Your task to perform on an android device: Open network settings Image 0: 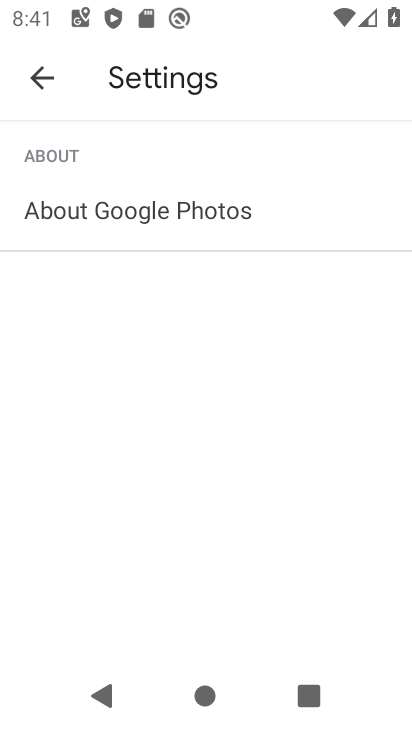
Step 0: press home button
Your task to perform on an android device: Open network settings Image 1: 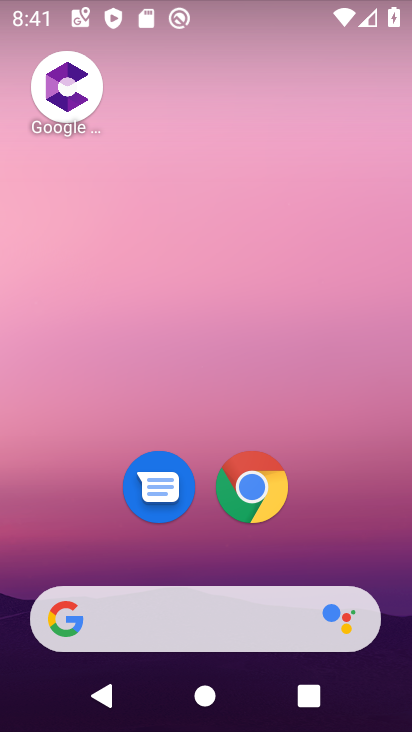
Step 1: drag from (361, 549) to (343, 122)
Your task to perform on an android device: Open network settings Image 2: 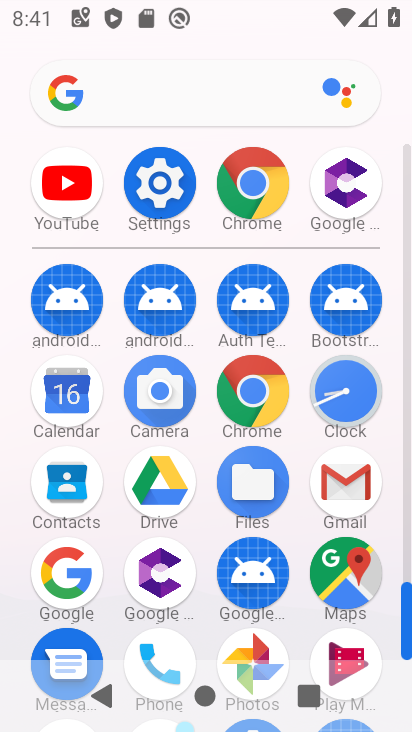
Step 2: click (174, 199)
Your task to perform on an android device: Open network settings Image 3: 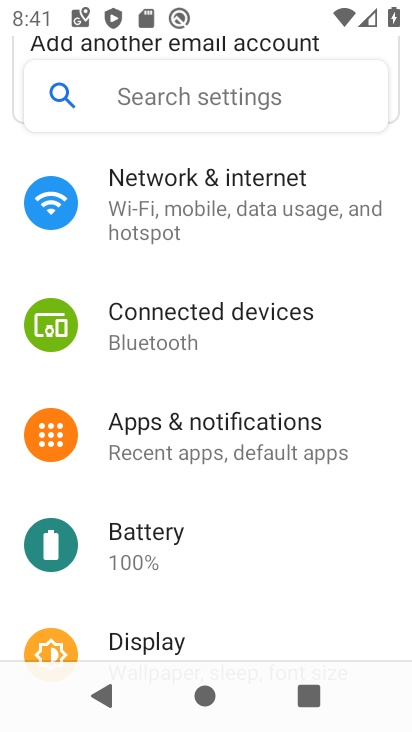
Step 3: drag from (366, 313) to (363, 540)
Your task to perform on an android device: Open network settings Image 4: 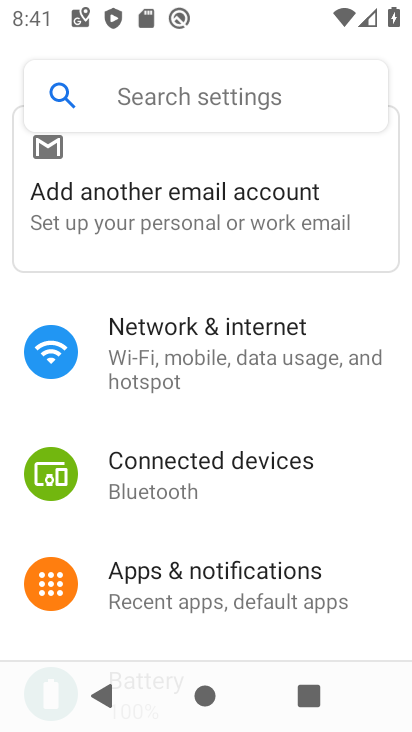
Step 4: drag from (355, 390) to (362, 541)
Your task to perform on an android device: Open network settings Image 5: 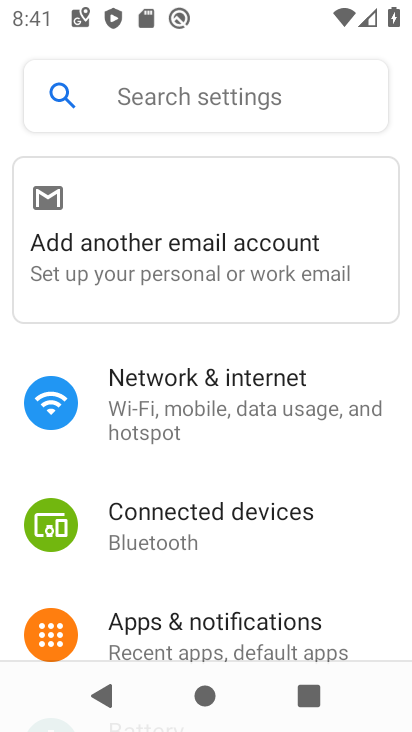
Step 5: drag from (373, 640) to (357, 465)
Your task to perform on an android device: Open network settings Image 6: 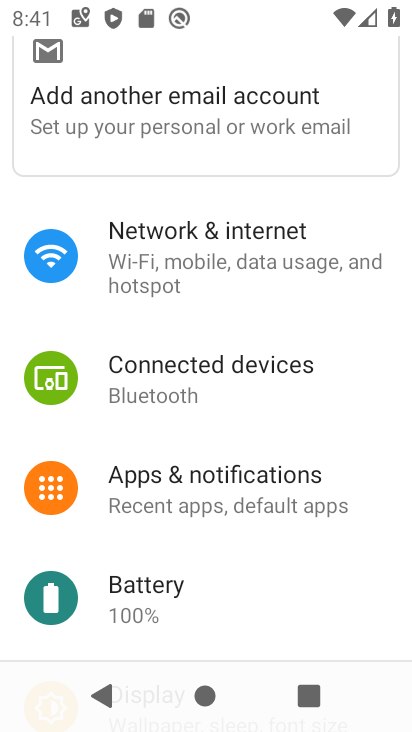
Step 6: drag from (366, 633) to (351, 446)
Your task to perform on an android device: Open network settings Image 7: 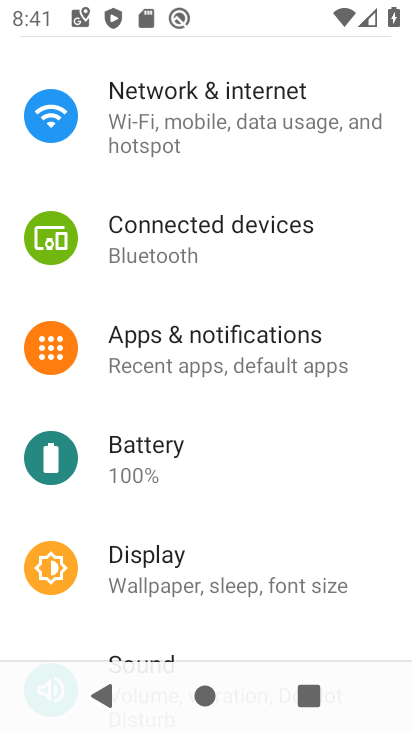
Step 7: drag from (329, 631) to (349, 464)
Your task to perform on an android device: Open network settings Image 8: 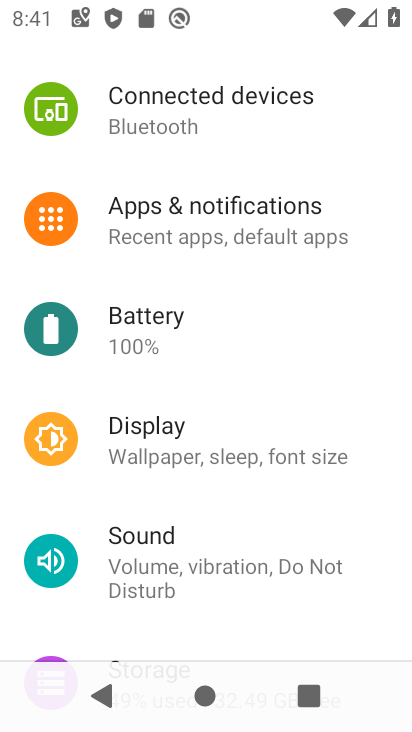
Step 8: drag from (363, 613) to (363, 498)
Your task to perform on an android device: Open network settings Image 9: 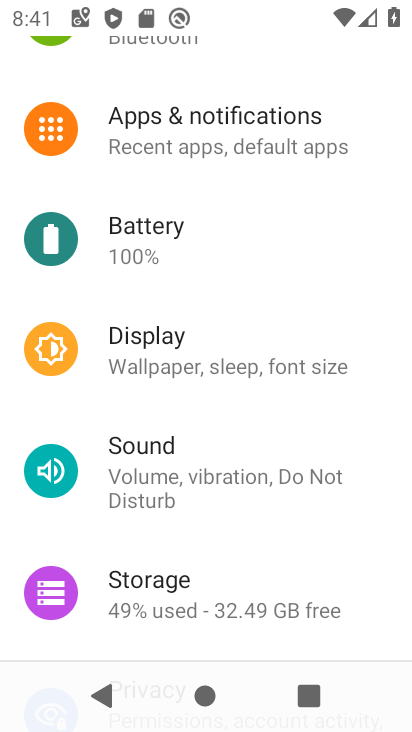
Step 9: drag from (323, 562) to (319, 403)
Your task to perform on an android device: Open network settings Image 10: 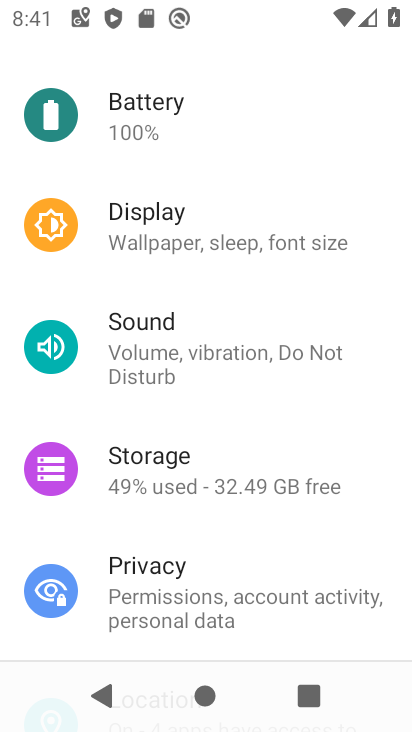
Step 10: drag from (310, 563) to (327, 377)
Your task to perform on an android device: Open network settings Image 11: 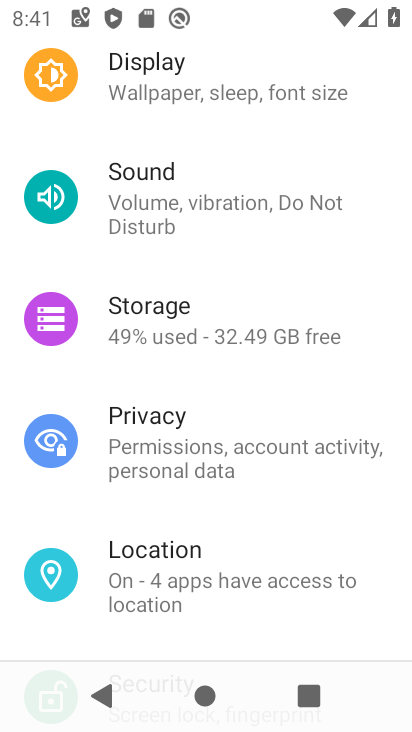
Step 11: drag from (309, 527) to (319, 364)
Your task to perform on an android device: Open network settings Image 12: 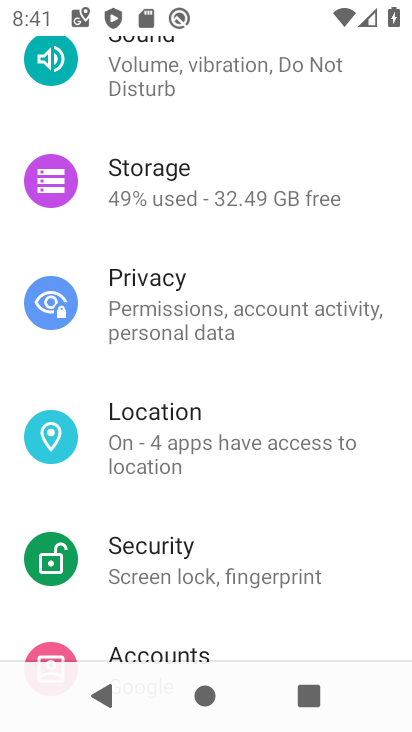
Step 12: drag from (326, 605) to (339, 359)
Your task to perform on an android device: Open network settings Image 13: 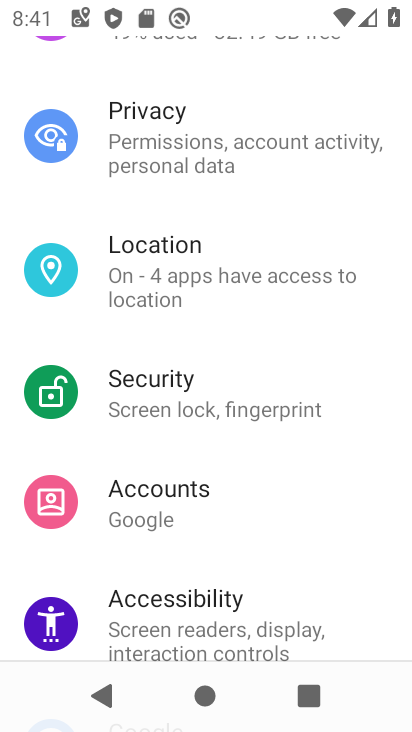
Step 13: drag from (310, 540) to (316, 393)
Your task to perform on an android device: Open network settings Image 14: 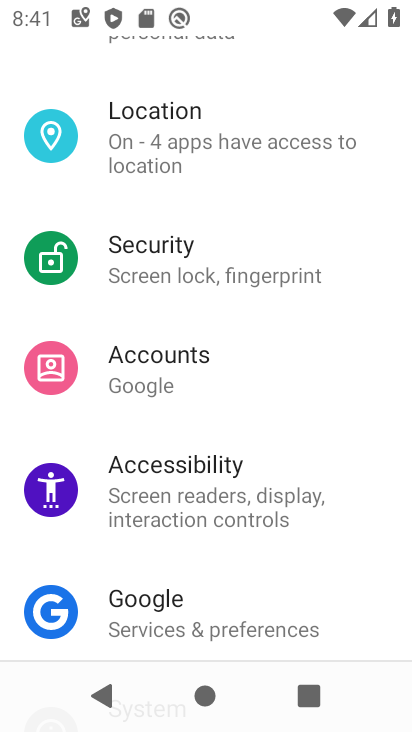
Step 14: drag from (314, 563) to (303, 371)
Your task to perform on an android device: Open network settings Image 15: 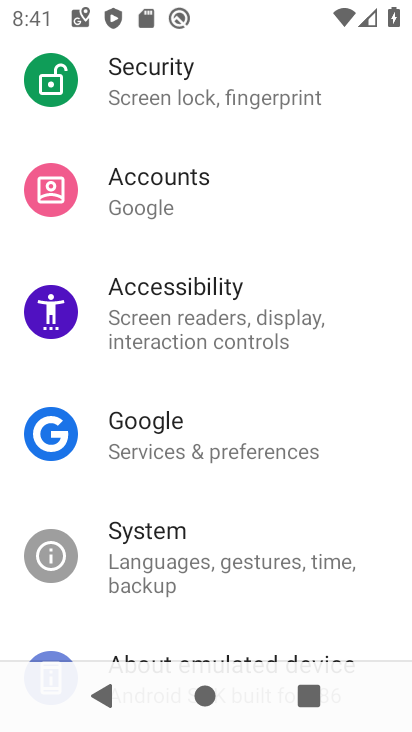
Step 15: drag from (295, 591) to (321, 406)
Your task to perform on an android device: Open network settings Image 16: 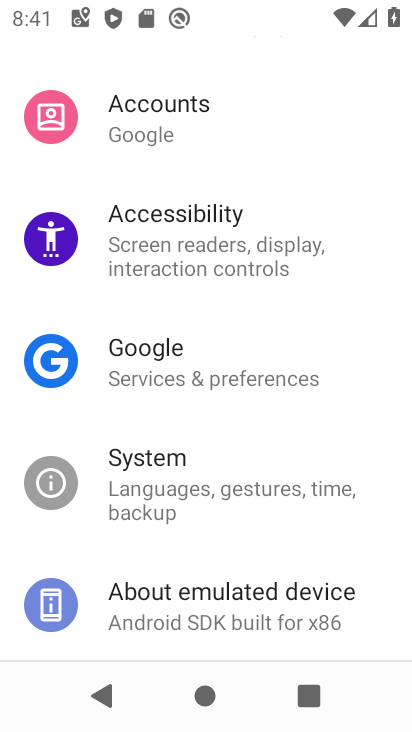
Step 16: drag from (346, 291) to (338, 458)
Your task to perform on an android device: Open network settings Image 17: 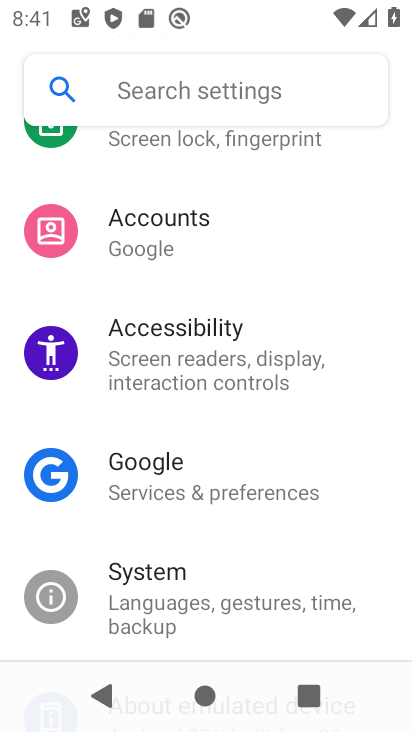
Step 17: drag from (346, 258) to (337, 436)
Your task to perform on an android device: Open network settings Image 18: 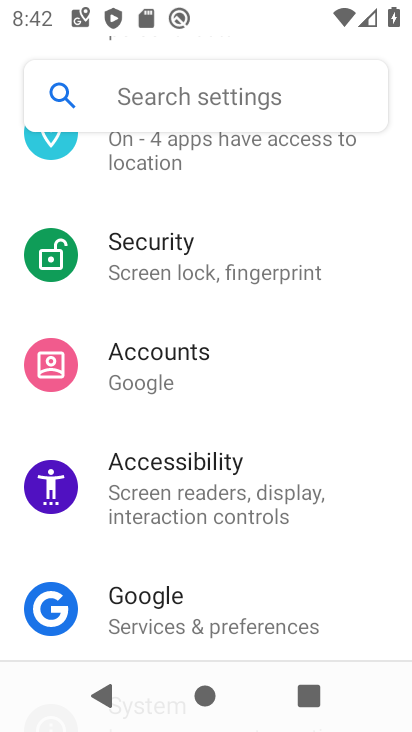
Step 18: drag from (354, 227) to (342, 432)
Your task to perform on an android device: Open network settings Image 19: 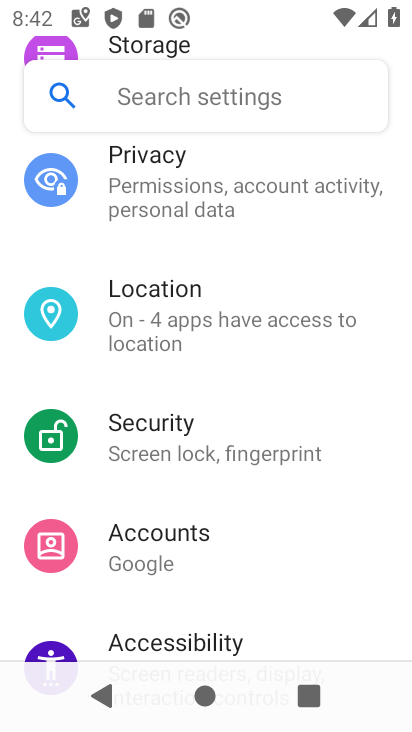
Step 19: drag from (350, 340) to (356, 486)
Your task to perform on an android device: Open network settings Image 20: 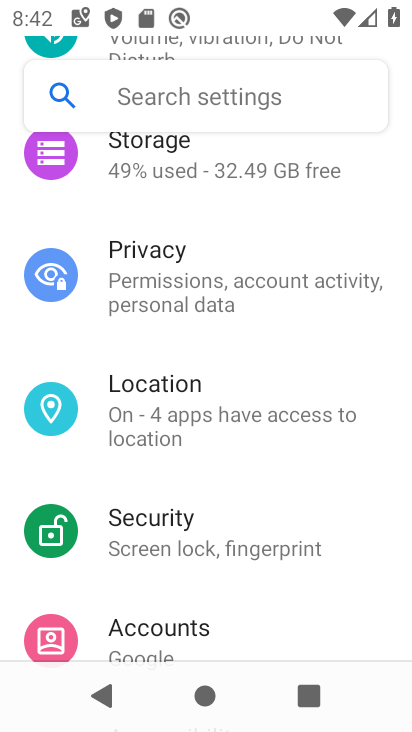
Step 20: drag from (369, 210) to (340, 434)
Your task to perform on an android device: Open network settings Image 21: 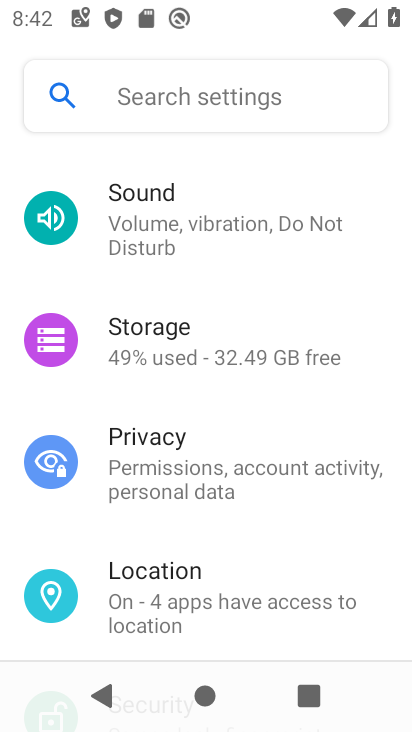
Step 21: drag from (377, 192) to (359, 423)
Your task to perform on an android device: Open network settings Image 22: 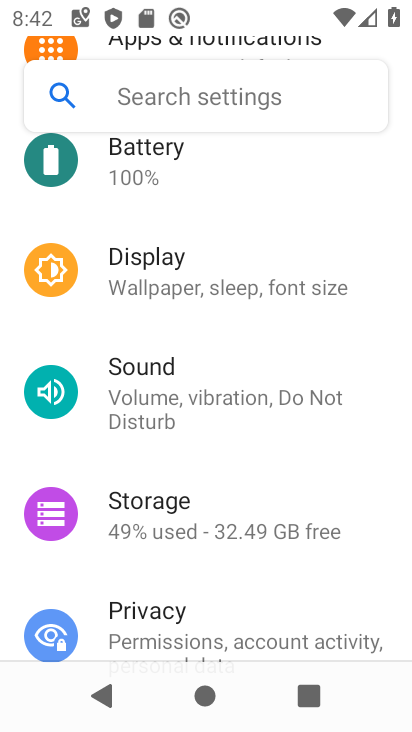
Step 22: drag from (363, 228) to (360, 406)
Your task to perform on an android device: Open network settings Image 23: 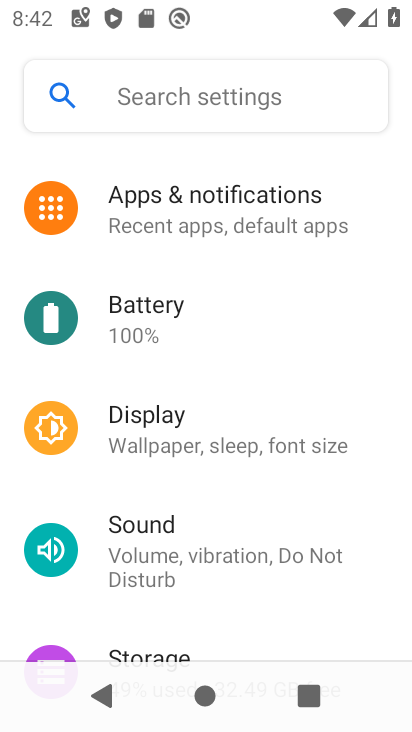
Step 23: drag from (374, 192) to (368, 342)
Your task to perform on an android device: Open network settings Image 24: 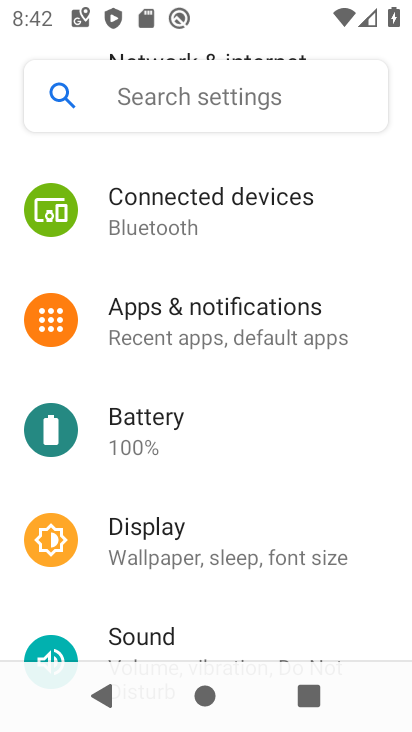
Step 24: drag from (379, 172) to (363, 337)
Your task to perform on an android device: Open network settings Image 25: 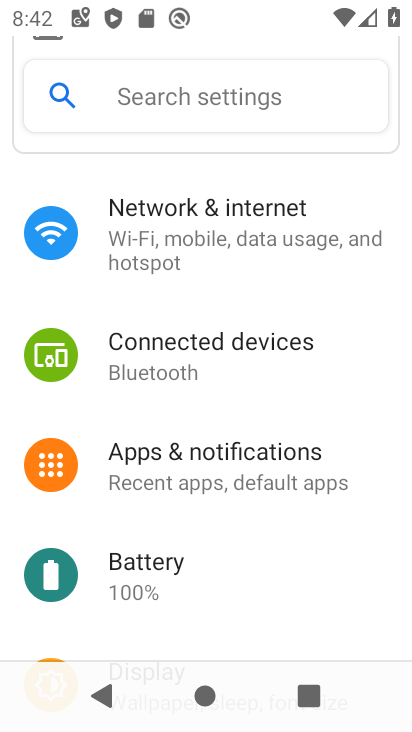
Step 25: click (297, 232)
Your task to perform on an android device: Open network settings Image 26: 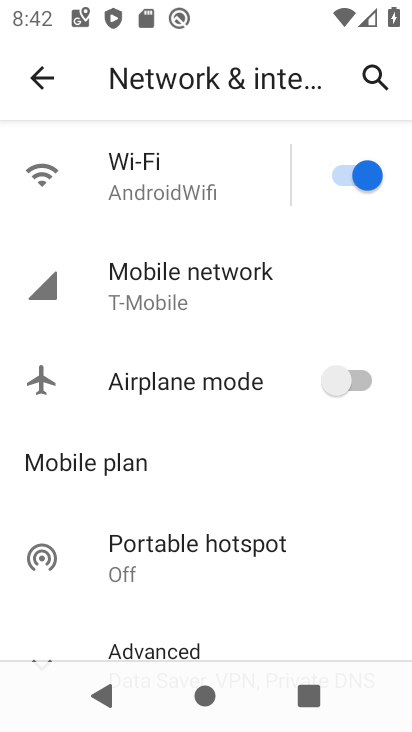
Step 26: task complete